Your task to perform on an android device: Open ESPN.com Image 0: 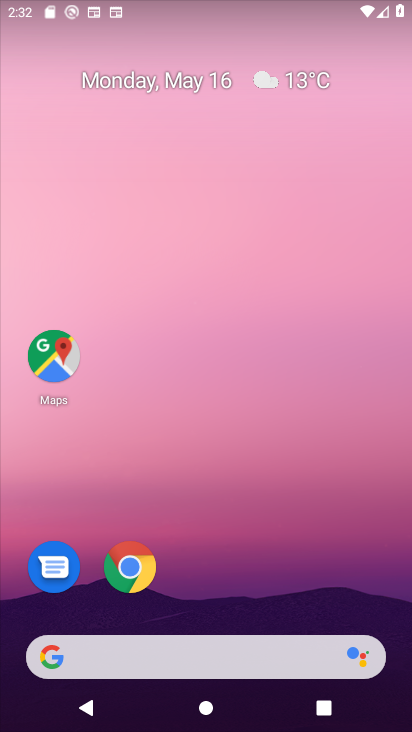
Step 0: click (129, 558)
Your task to perform on an android device: Open ESPN.com Image 1: 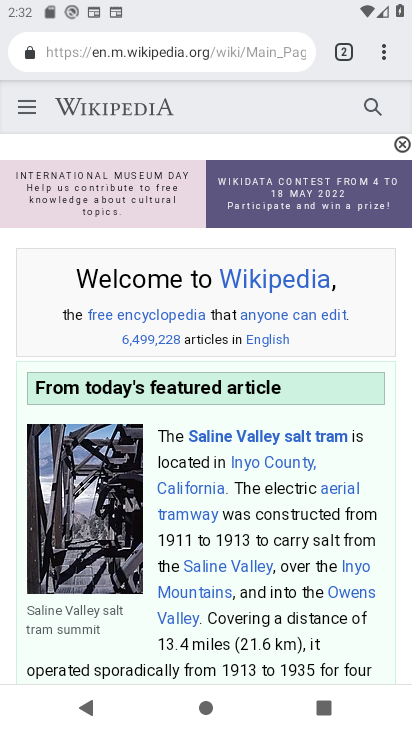
Step 1: click (345, 46)
Your task to perform on an android device: Open ESPN.com Image 2: 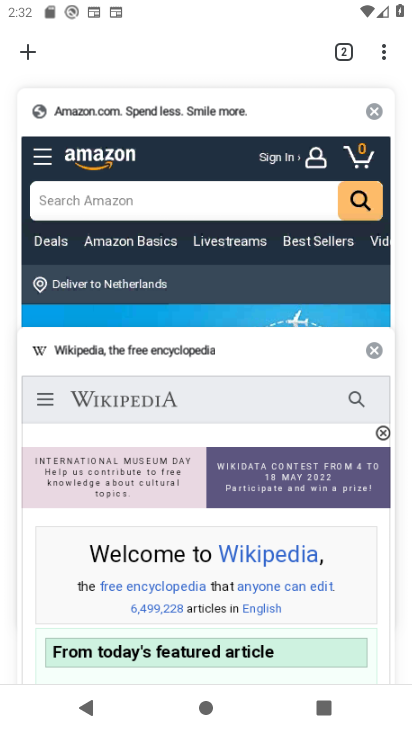
Step 2: click (34, 52)
Your task to perform on an android device: Open ESPN.com Image 3: 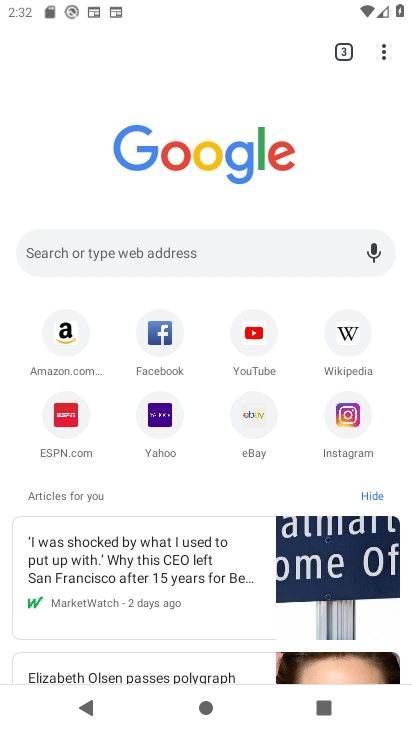
Step 3: click (61, 413)
Your task to perform on an android device: Open ESPN.com Image 4: 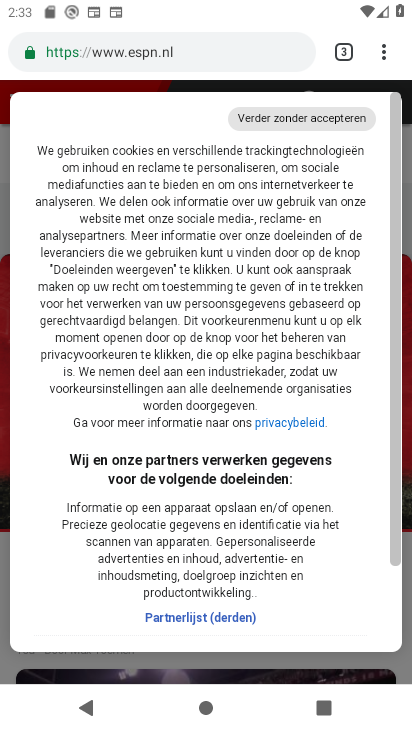
Step 4: click (220, 619)
Your task to perform on an android device: Open ESPN.com Image 5: 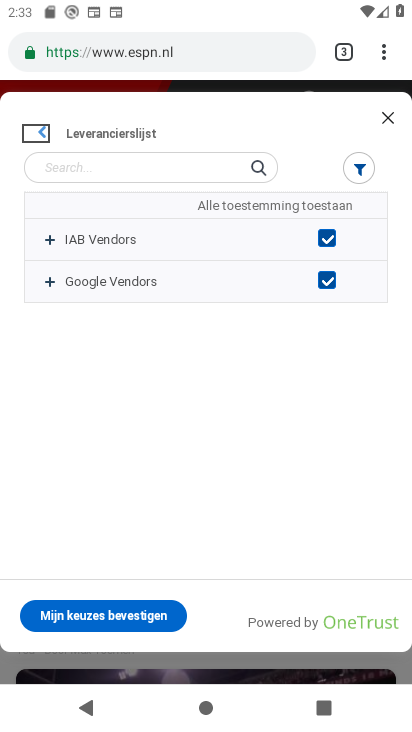
Step 5: task complete